Your task to perform on an android device: What's the weather today? Image 0: 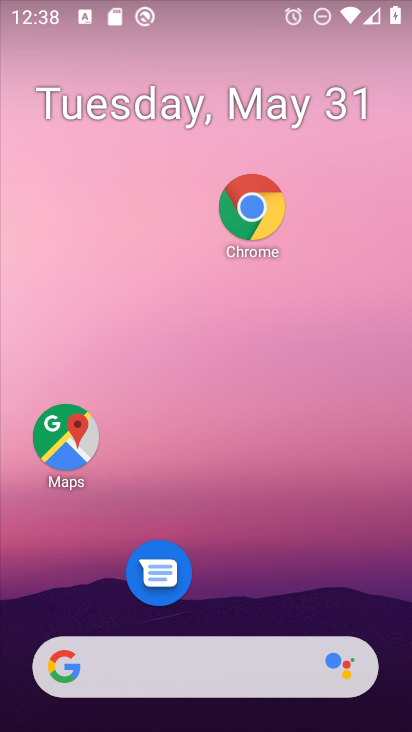
Step 0: drag from (275, 640) to (263, 150)
Your task to perform on an android device: What's the weather today? Image 1: 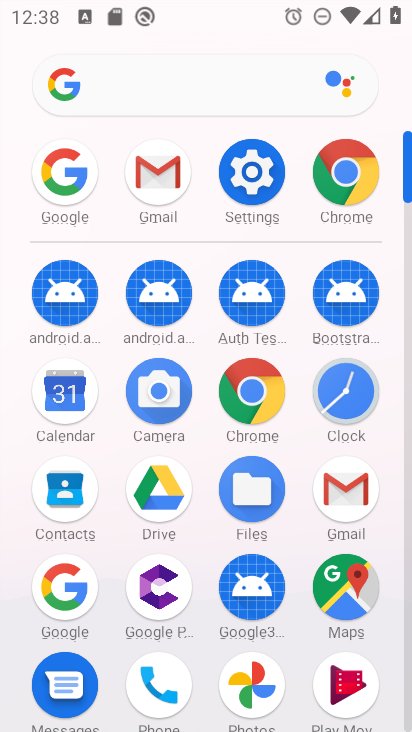
Step 1: click (76, 587)
Your task to perform on an android device: What's the weather today? Image 2: 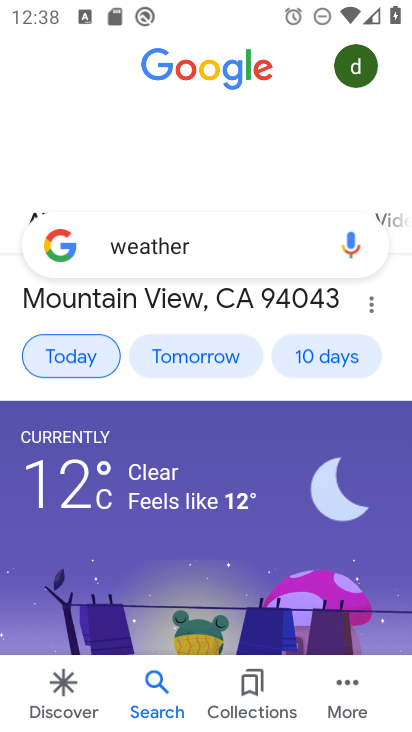
Step 2: task complete